Your task to perform on an android device: Search for pizza restaurants on Maps Image 0: 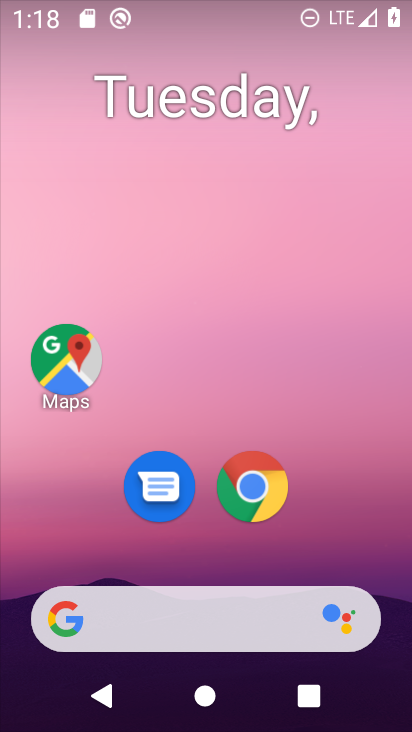
Step 0: click (72, 366)
Your task to perform on an android device: Search for pizza restaurants on Maps Image 1: 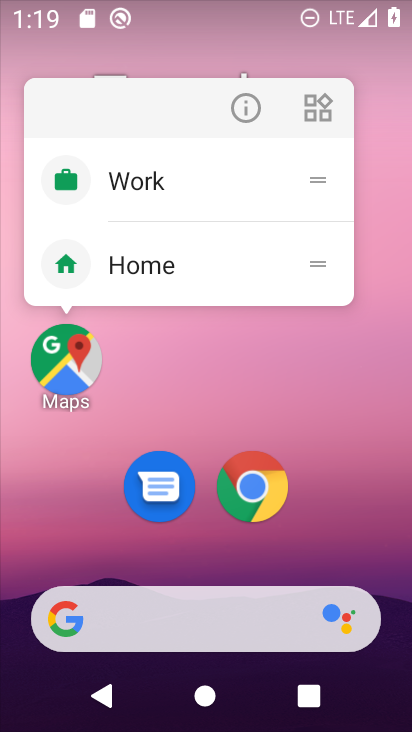
Step 1: click (51, 362)
Your task to perform on an android device: Search for pizza restaurants on Maps Image 2: 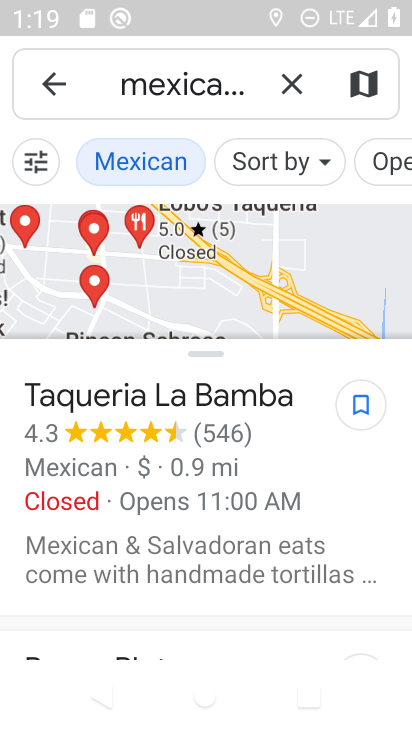
Step 2: click (290, 77)
Your task to perform on an android device: Search for pizza restaurants on Maps Image 3: 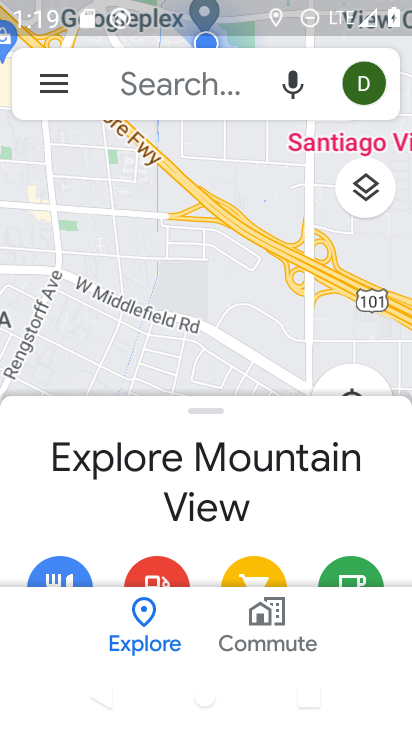
Step 3: click (157, 81)
Your task to perform on an android device: Search for pizza restaurants on Maps Image 4: 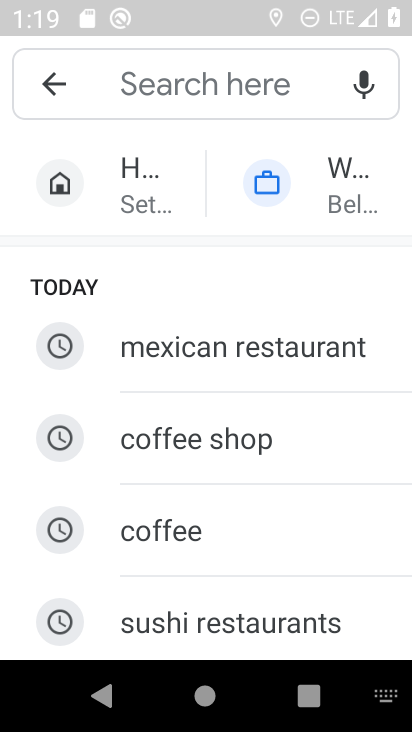
Step 4: drag from (8, 582) to (169, 192)
Your task to perform on an android device: Search for pizza restaurants on Maps Image 5: 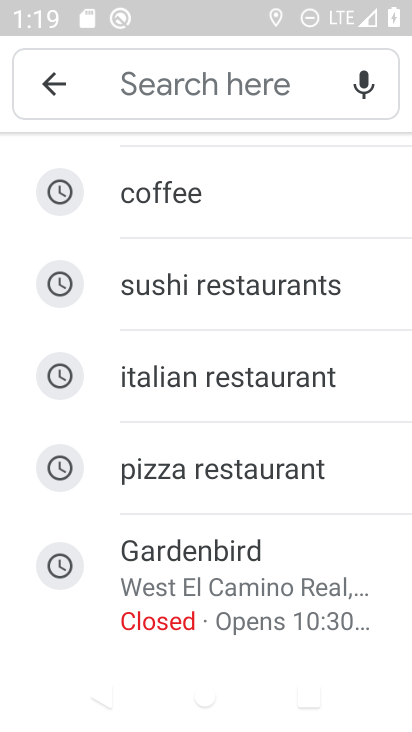
Step 5: click (139, 467)
Your task to perform on an android device: Search for pizza restaurants on Maps Image 6: 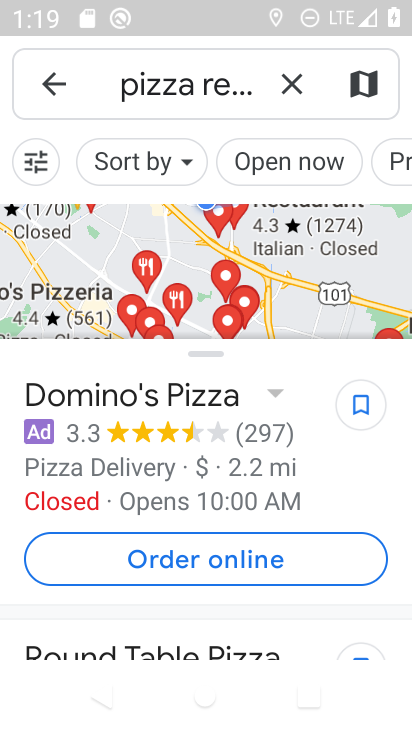
Step 6: task complete